Your task to perform on an android device: open sync settings in chrome Image 0: 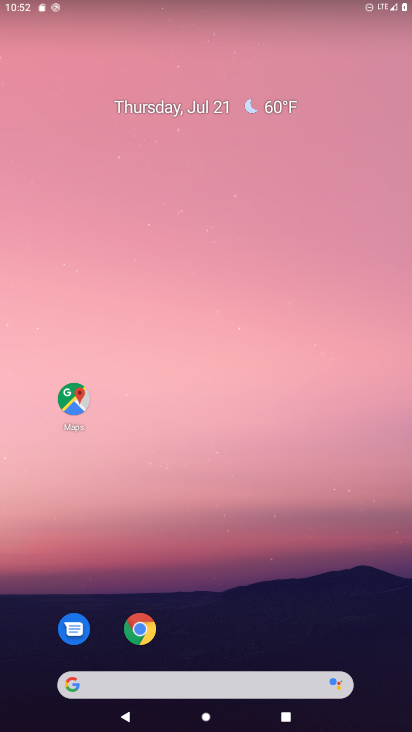
Step 0: press home button
Your task to perform on an android device: open sync settings in chrome Image 1: 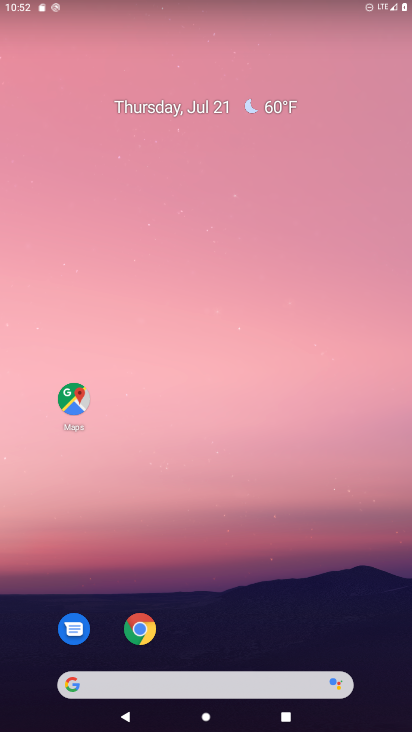
Step 1: click (142, 638)
Your task to perform on an android device: open sync settings in chrome Image 2: 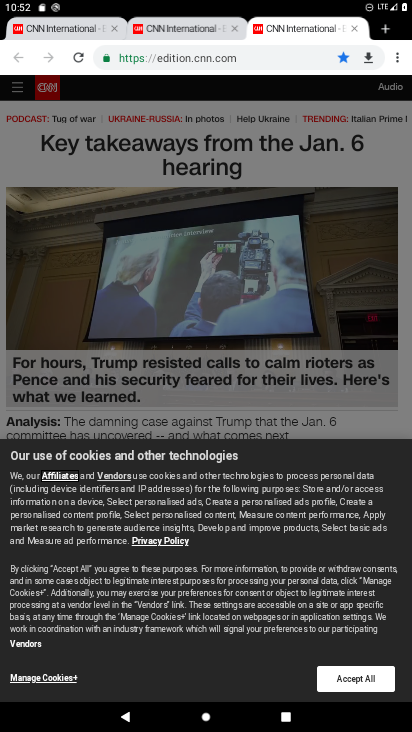
Step 2: drag from (396, 53) to (276, 391)
Your task to perform on an android device: open sync settings in chrome Image 3: 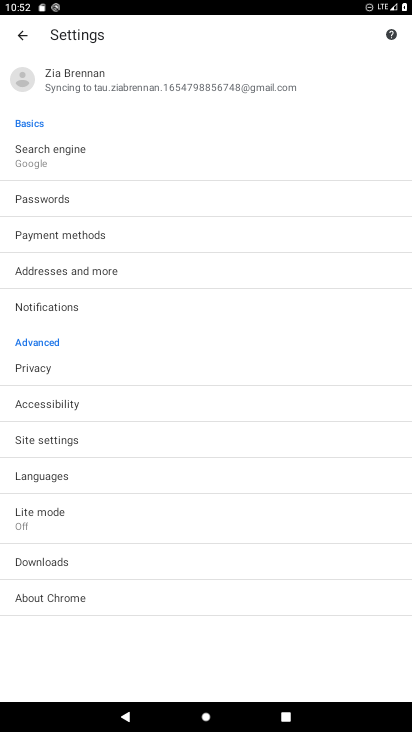
Step 3: click (38, 437)
Your task to perform on an android device: open sync settings in chrome Image 4: 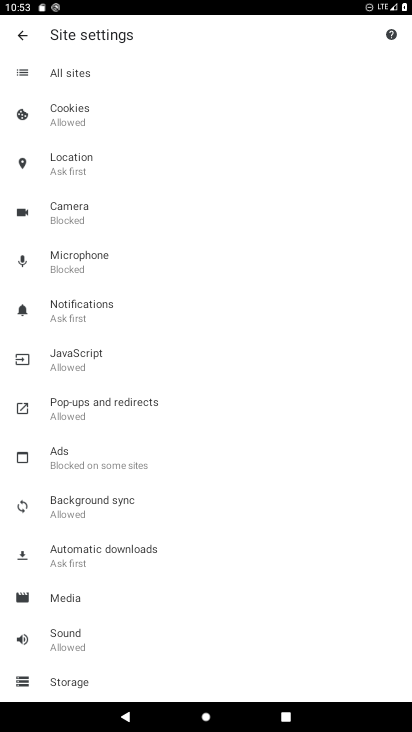
Step 4: click (84, 512)
Your task to perform on an android device: open sync settings in chrome Image 5: 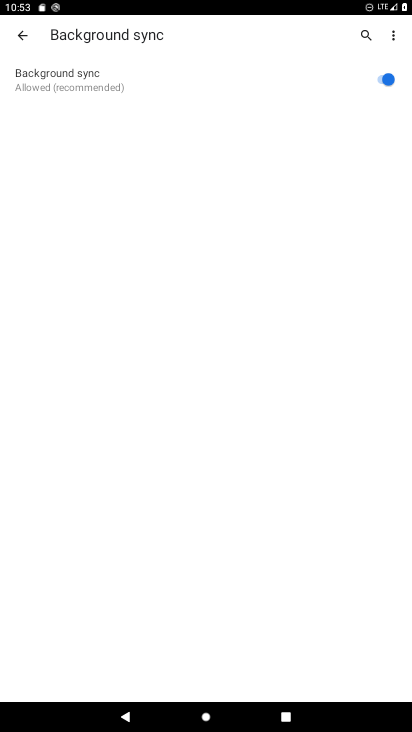
Step 5: task complete